Your task to perform on an android device: Go to settings Image 0: 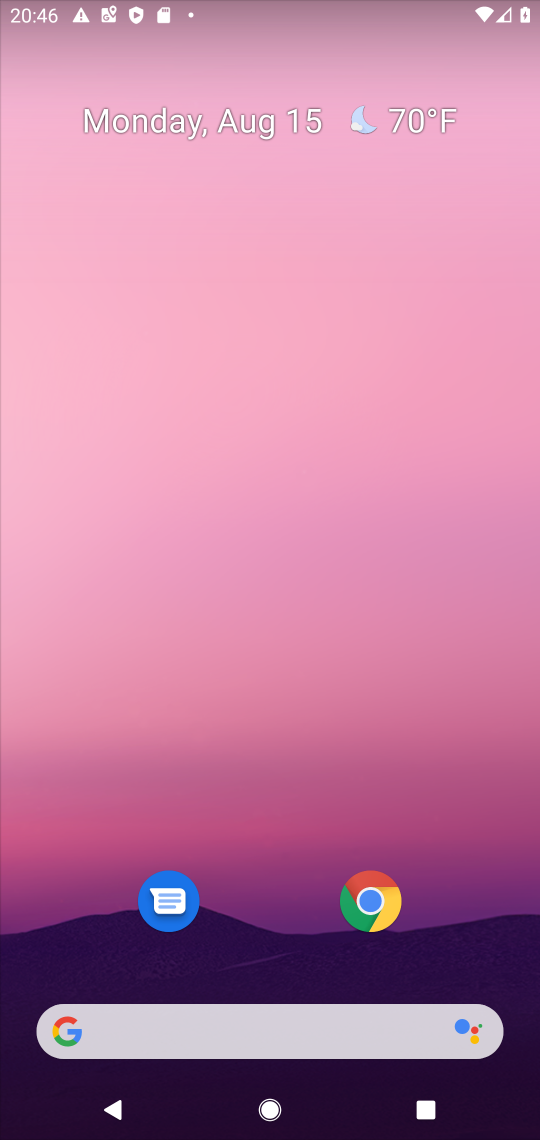
Step 0: drag from (260, 532) to (191, 0)
Your task to perform on an android device: Go to settings Image 1: 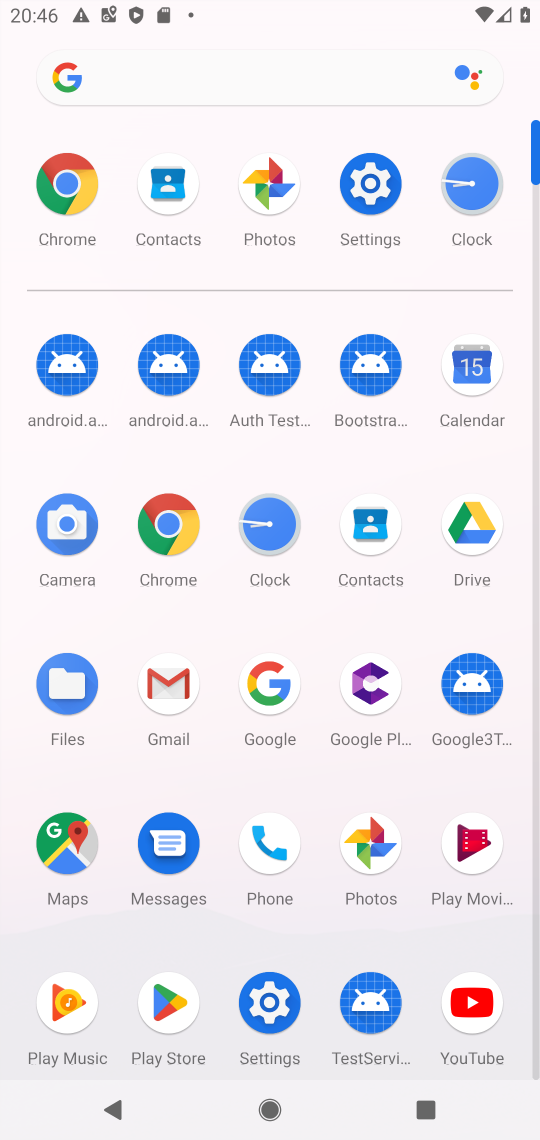
Step 1: click (268, 1006)
Your task to perform on an android device: Go to settings Image 2: 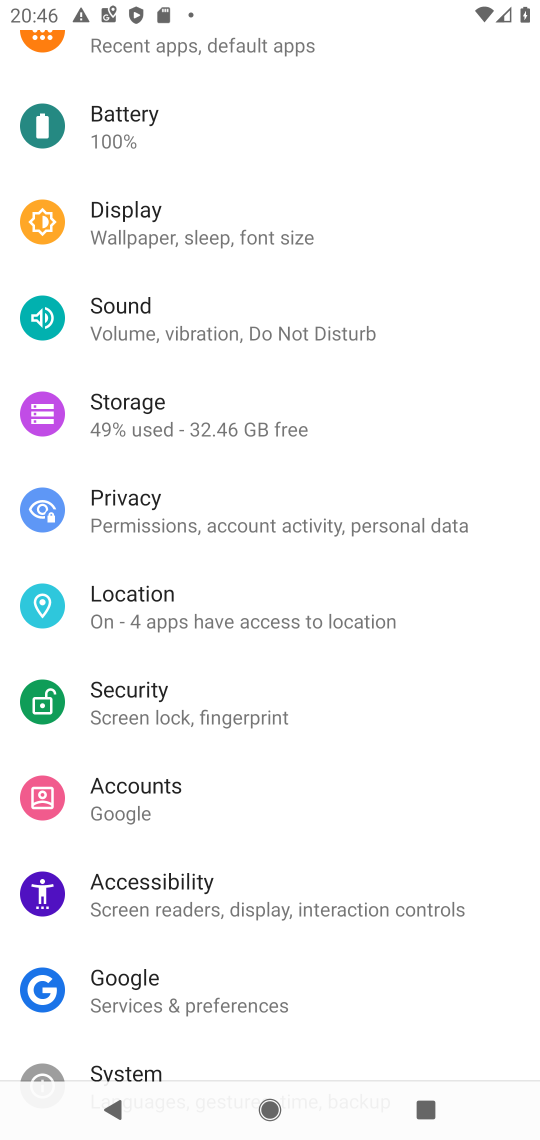
Step 2: task complete